Your task to perform on an android device: Open Maps and search for coffee Image 0: 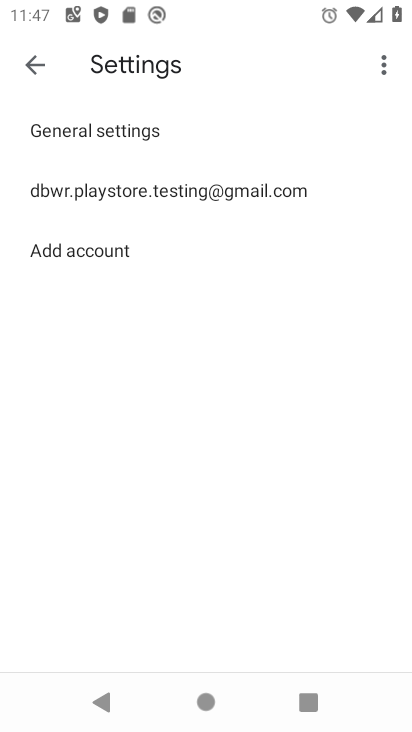
Step 0: press home button
Your task to perform on an android device: Open Maps and search for coffee Image 1: 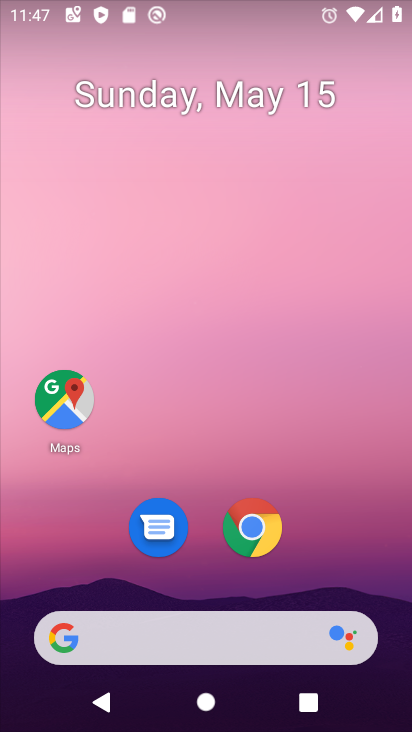
Step 1: click (80, 386)
Your task to perform on an android device: Open Maps and search for coffee Image 2: 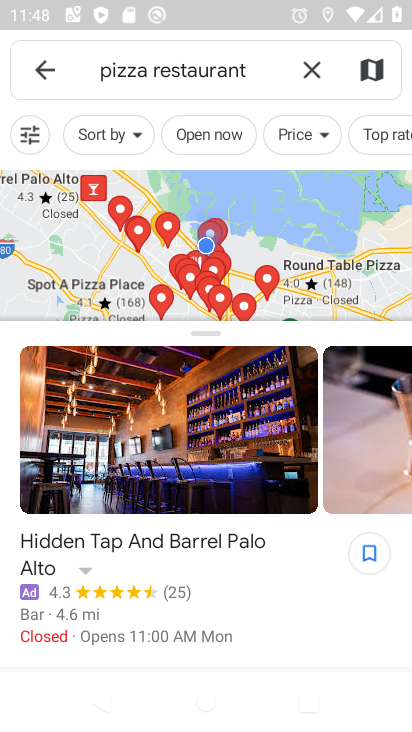
Step 2: click (312, 73)
Your task to perform on an android device: Open Maps and search for coffee Image 3: 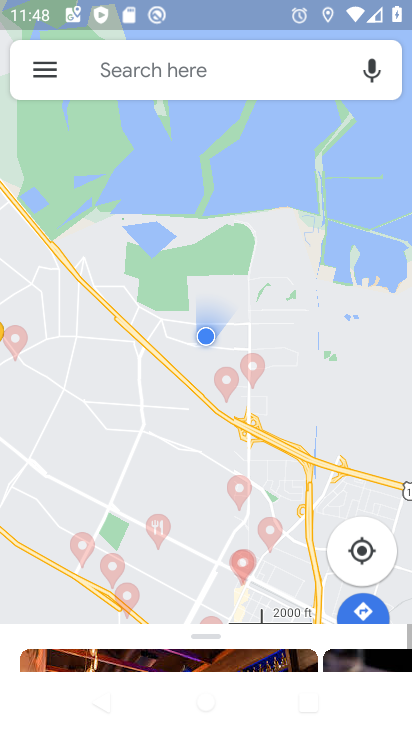
Step 3: click (312, 73)
Your task to perform on an android device: Open Maps and search for coffee Image 4: 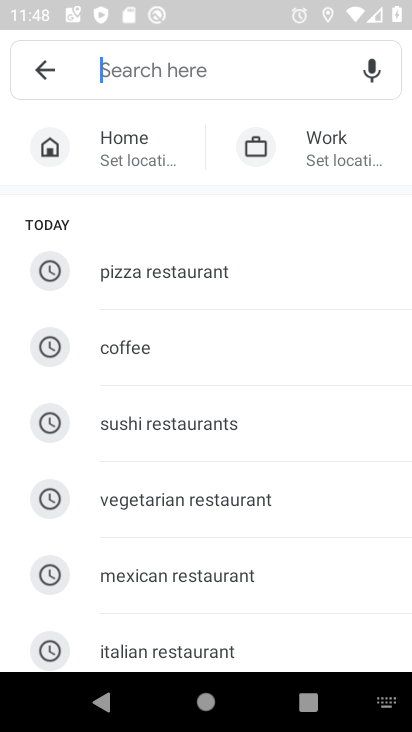
Step 4: click (186, 337)
Your task to perform on an android device: Open Maps and search for coffee Image 5: 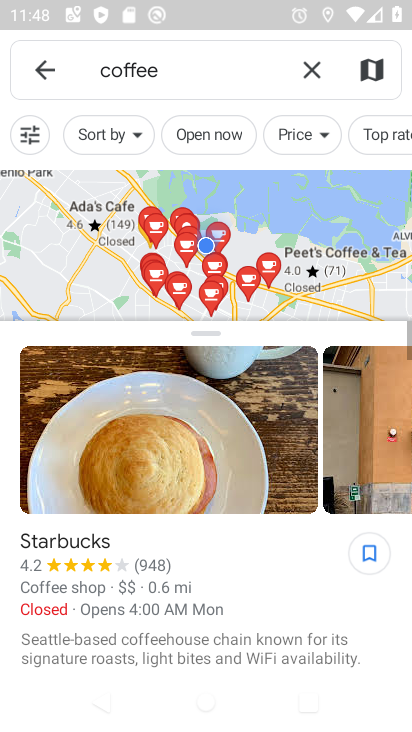
Step 5: task complete